Your task to perform on an android device: find photos in the google photos app Image 0: 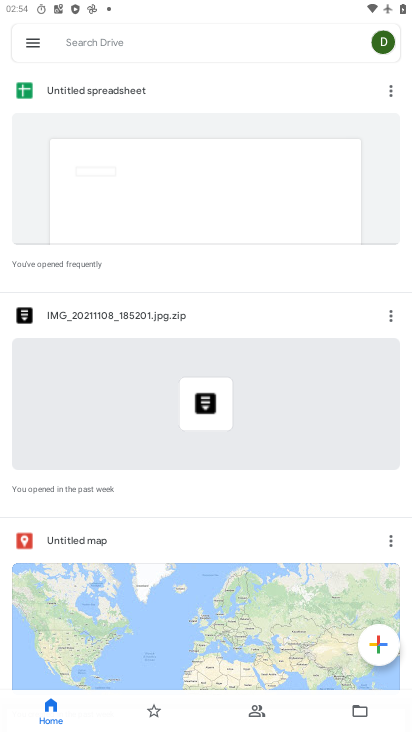
Step 0: press home button
Your task to perform on an android device: find photos in the google photos app Image 1: 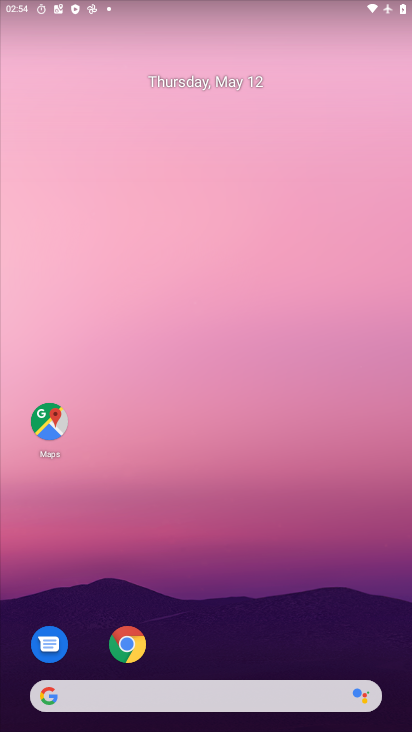
Step 1: drag from (247, 614) to (202, 121)
Your task to perform on an android device: find photos in the google photos app Image 2: 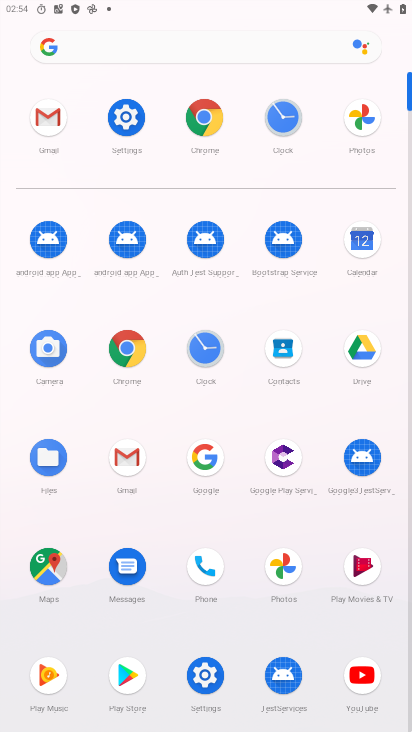
Step 2: click (268, 560)
Your task to perform on an android device: find photos in the google photos app Image 3: 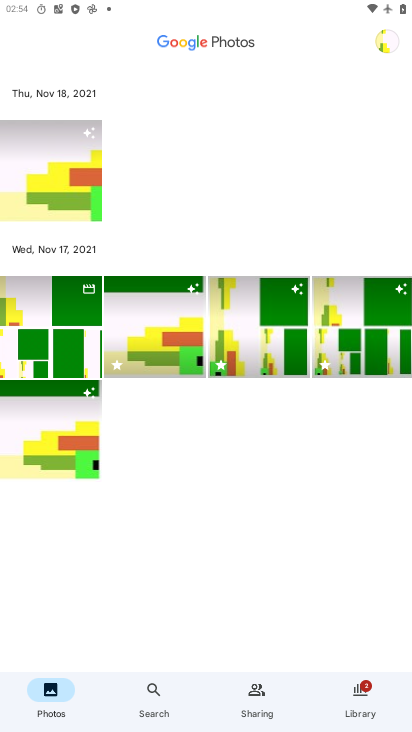
Step 3: task complete